Your task to perform on an android device: set the stopwatch Image 0: 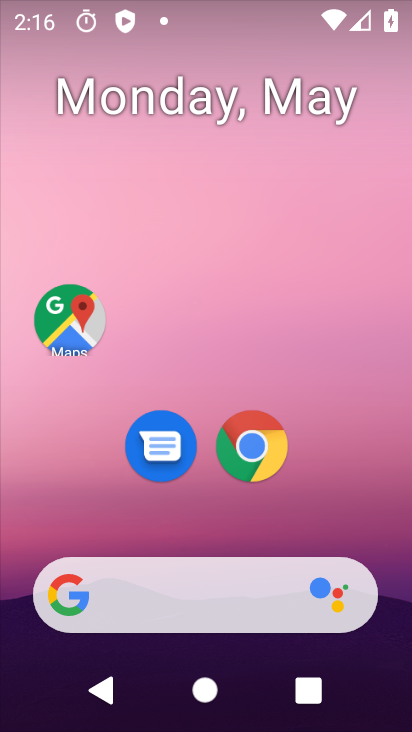
Step 0: click (214, 181)
Your task to perform on an android device: set the stopwatch Image 1: 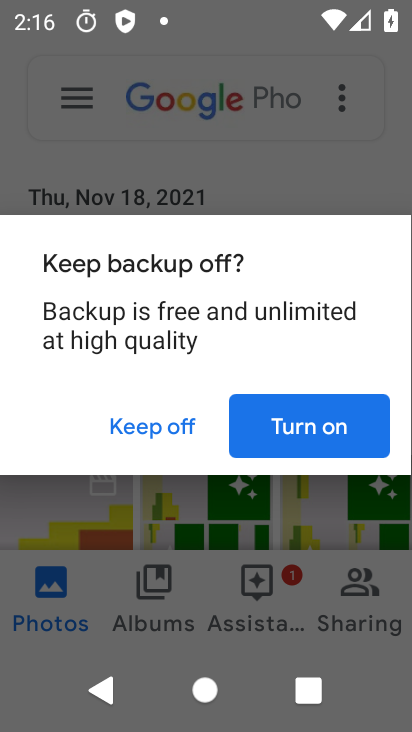
Step 1: press home button
Your task to perform on an android device: set the stopwatch Image 2: 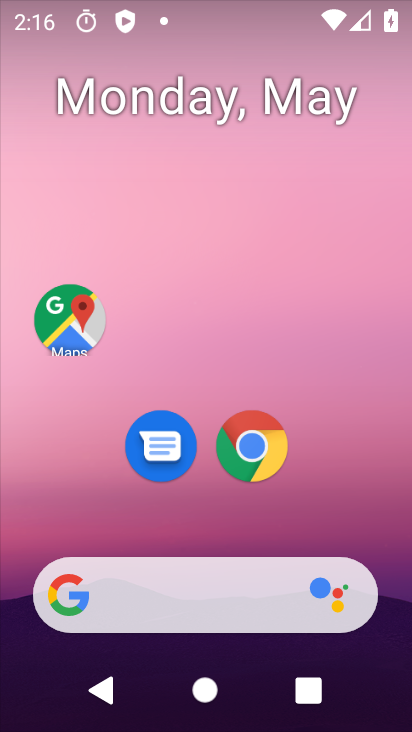
Step 2: drag from (155, 579) to (165, 172)
Your task to perform on an android device: set the stopwatch Image 3: 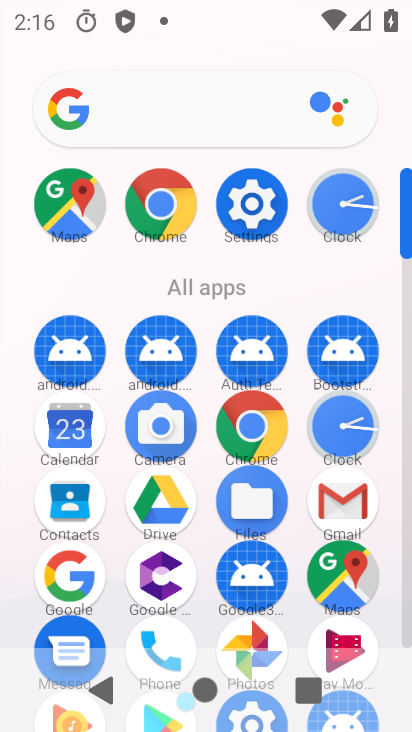
Step 3: click (337, 438)
Your task to perform on an android device: set the stopwatch Image 4: 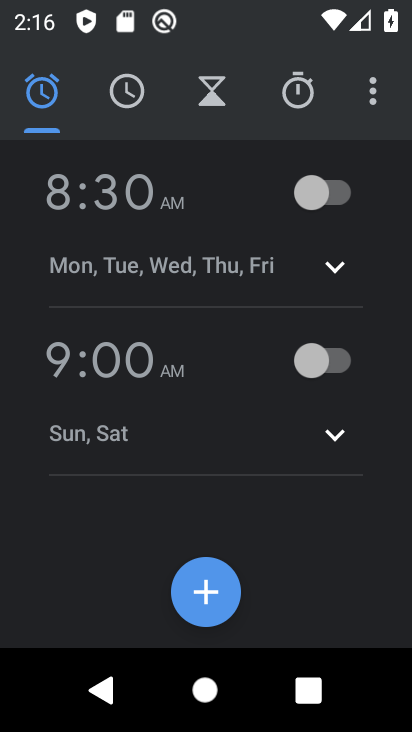
Step 4: click (293, 89)
Your task to perform on an android device: set the stopwatch Image 5: 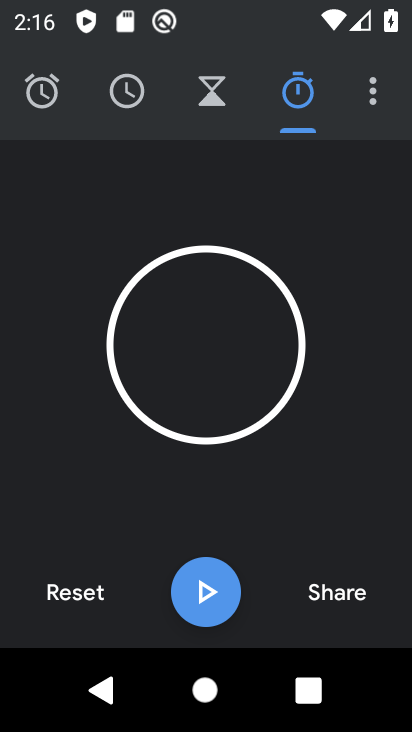
Step 5: click (82, 588)
Your task to perform on an android device: set the stopwatch Image 6: 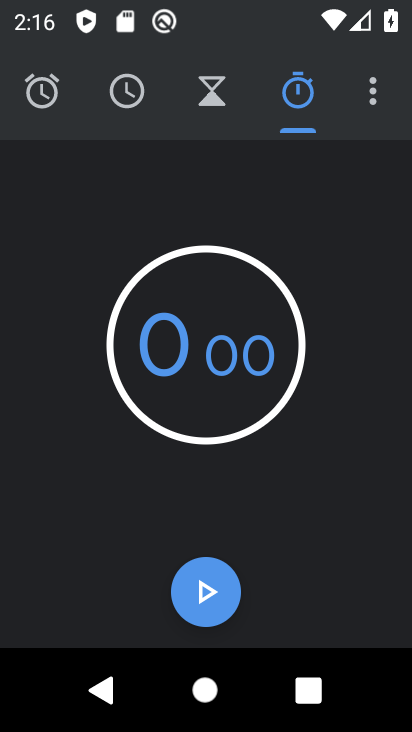
Step 6: click (184, 622)
Your task to perform on an android device: set the stopwatch Image 7: 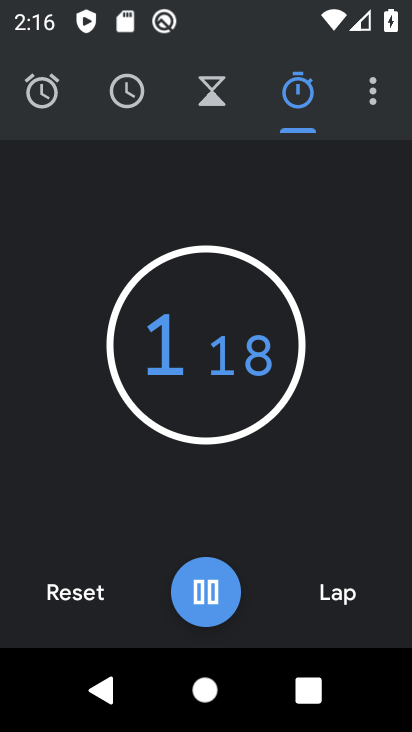
Step 7: task complete